Your task to perform on an android device: Open the stopwatch Image 0: 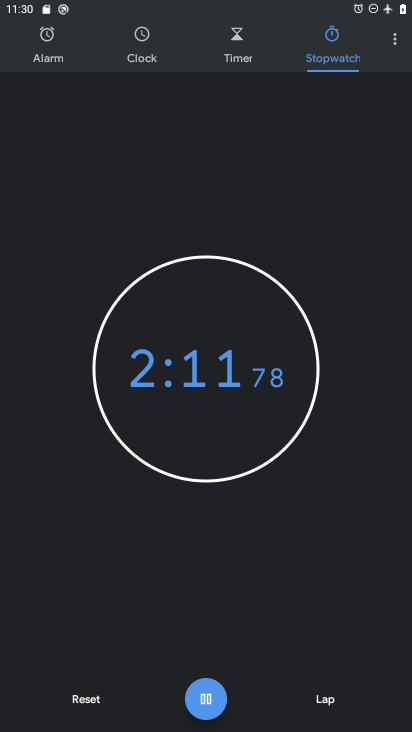
Step 0: task complete